Your task to perform on an android device: Search for vegetarian restaurants on Maps Image 0: 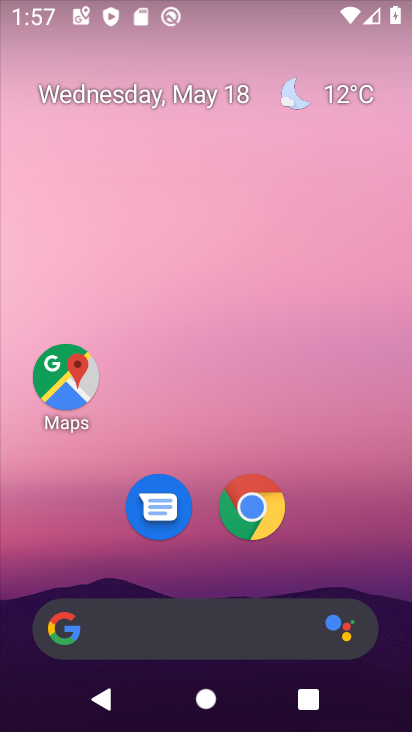
Step 0: click (71, 355)
Your task to perform on an android device: Search for vegetarian restaurants on Maps Image 1: 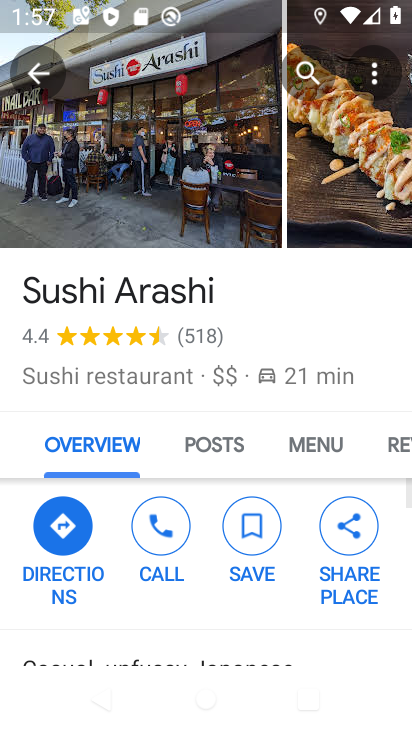
Step 1: press back button
Your task to perform on an android device: Search for vegetarian restaurants on Maps Image 2: 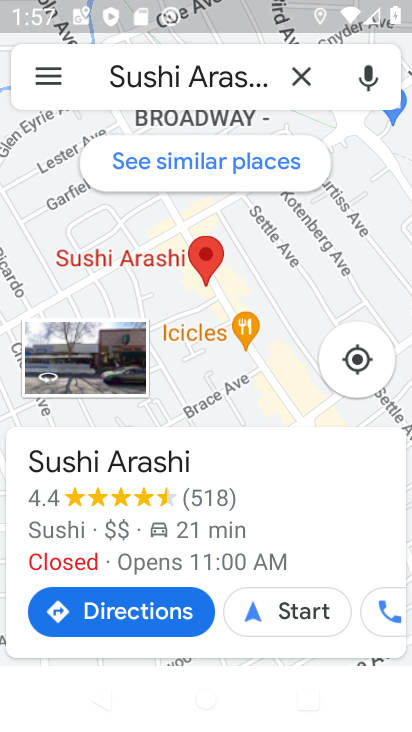
Step 2: click (311, 73)
Your task to perform on an android device: Search for vegetarian restaurants on Maps Image 3: 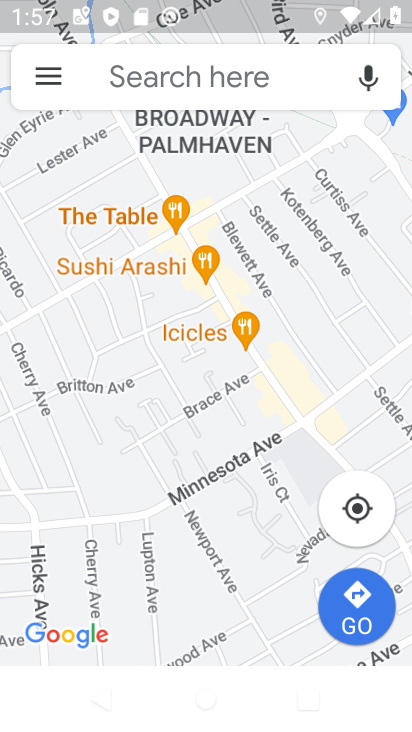
Step 3: click (122, 83)
Your task to perform on an android device: Search for vegetarian restaurants on Maps Image 4: 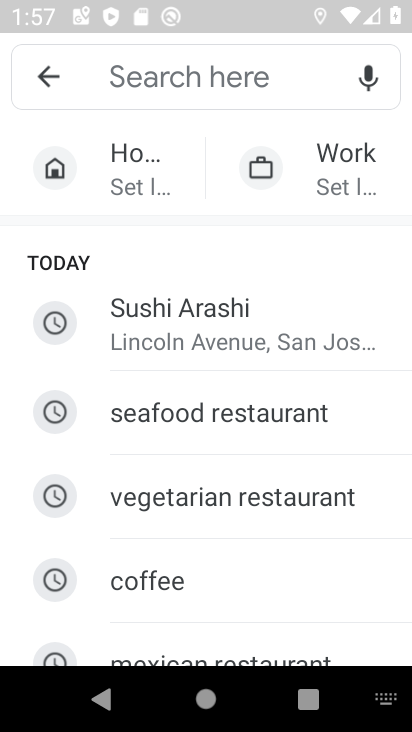
Step 4: type "vegetarian restaurants"
Your task to perform on an android device: Search for vegetarian restaurants on Maps Image 5: 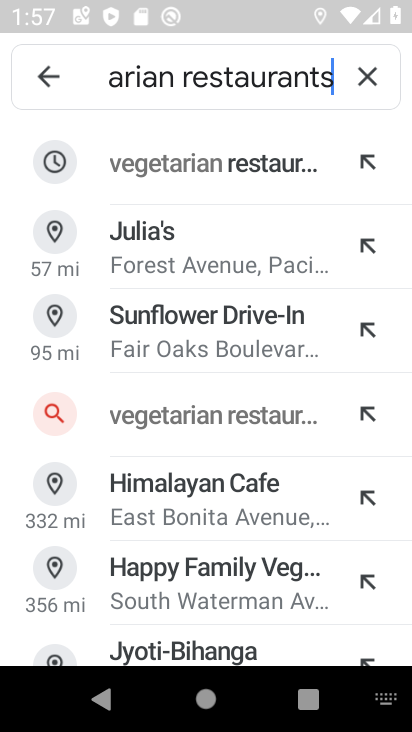
Step 5: click (248, 166)
Your task to perform on an android device: Search for vegetarian restaurants on Maps Image 6: 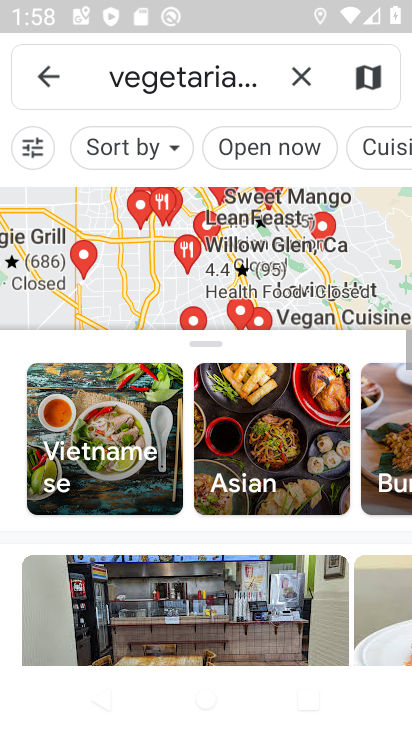
Step 6: task complete